Your task to perform on an android device: see tabs open on other devices in the chrome app Image 0: 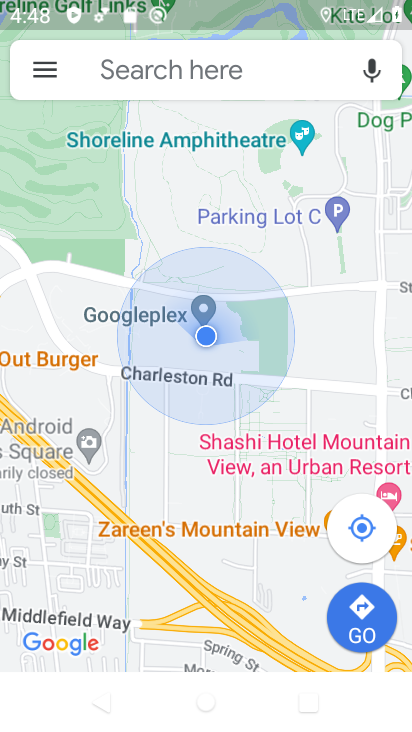
Step 0: press home button
Your task to perform on an android device: see tabs open on other devices in the chrome app Image 1: 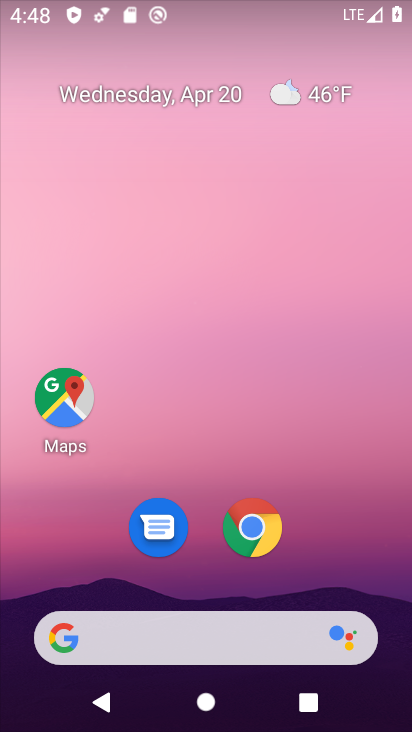
Step 1: click (253, 529)
Your task to perform on an android device: see tabs open on other devices in the chrome app Image 2: 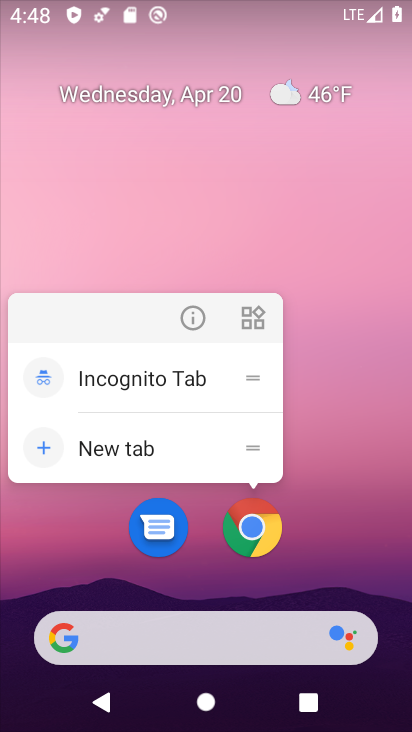
Step 2: click (253, 525)
Your task to perform on an android device: see tabs open on other devices in the chrome app Image 3: 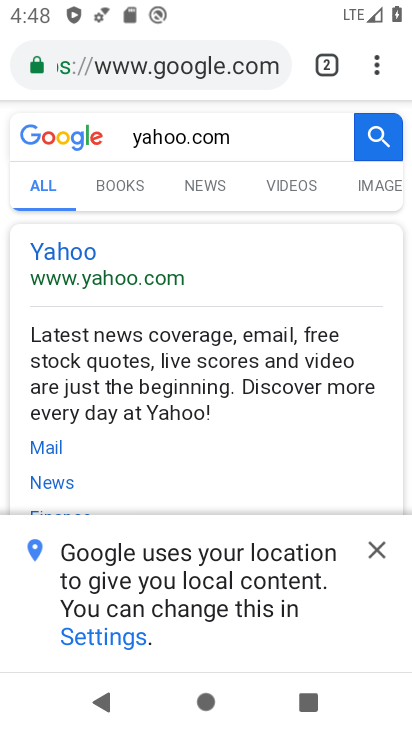
Step 3: click (371, 57)
Your task to perform on an android device: see tabs open on other devices in the chrome app Image 4: 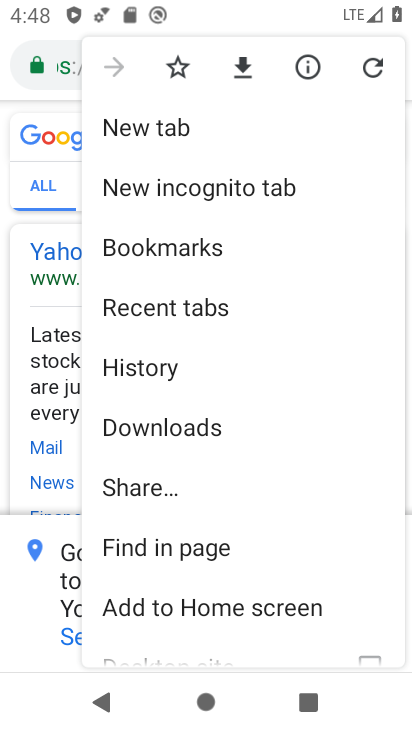
Step 4: click (226, 313)
Your task to perform on an android device: see tabs open on other devices in the chrome app Image 5: 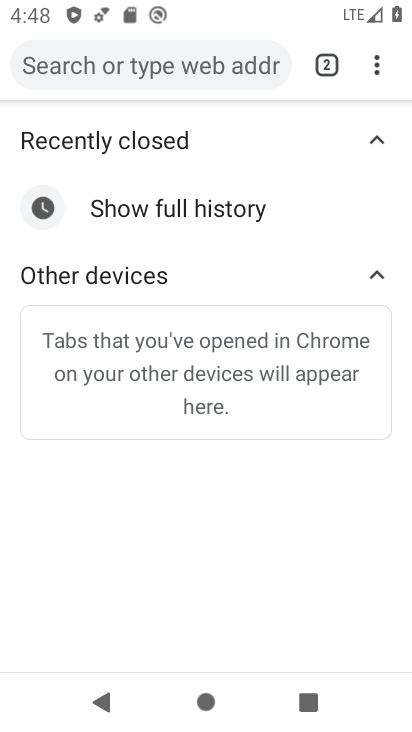
Step 5: task complete